Your task to perform on an android device: toggle data saver in the chrome app Image 0: 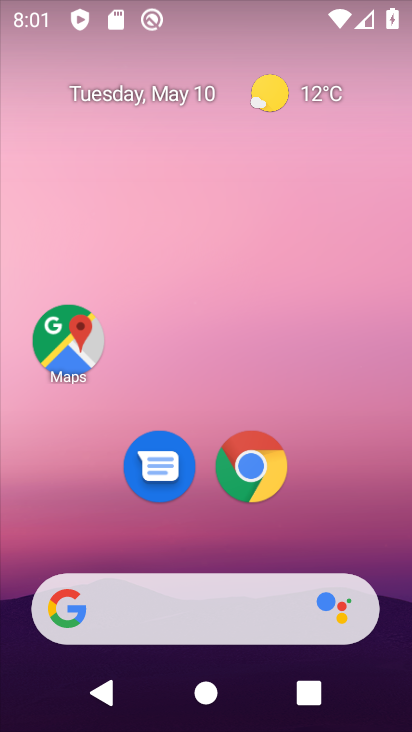
Step 0: click (254, 485)
Your task to perform on an android device: toggle data saver in the chrome app Image 1: 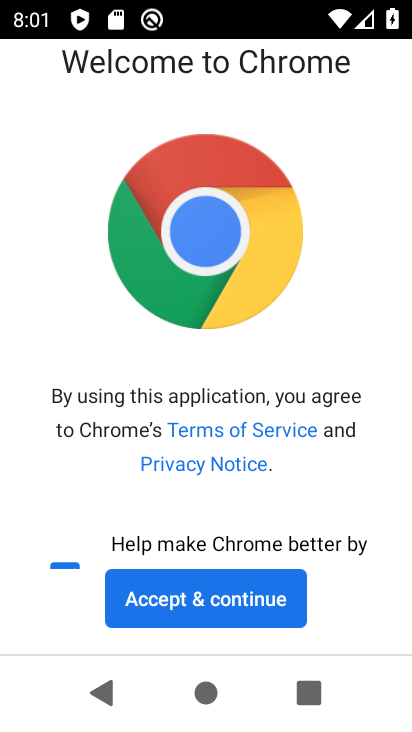
Step 1: click (201, 600)
Your task to perform on an android device: toggle data saver in the chrome app Image 2: 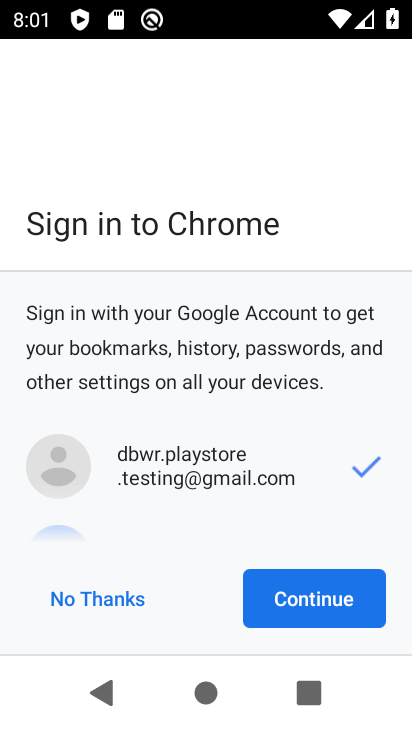
Step 2: click (310, 597)
Your task to perform on an android device: toggle data saver in the chrome app Image 3: 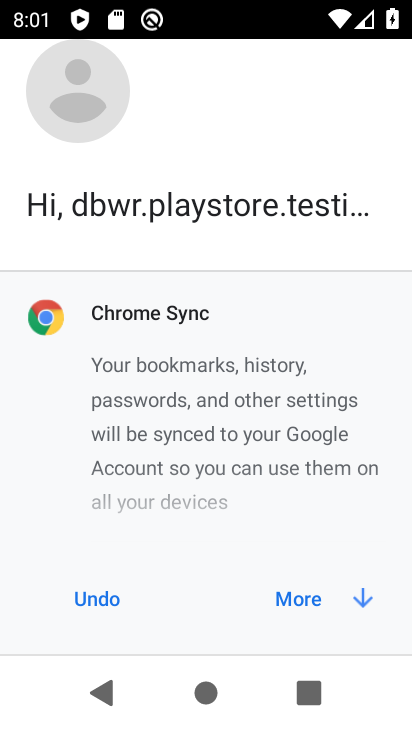
Step 3: click (310, 597)
Your task to perform on an android device: toggle data saver in the chrome app Image 4: 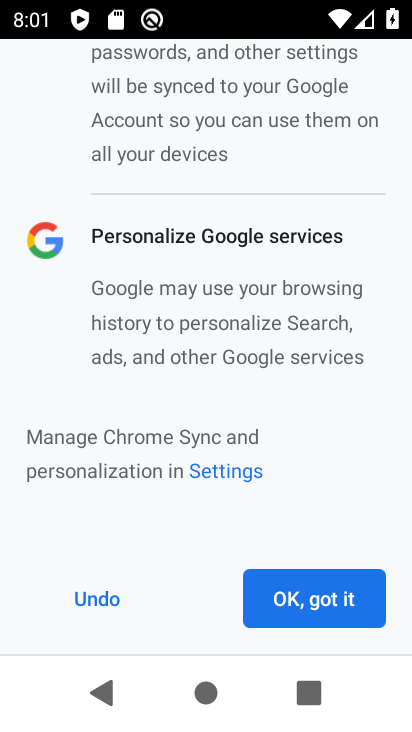
Step 4: click (308, 603)
Your task to perform on an android device: toggle data saver in the chrome app Image 5: 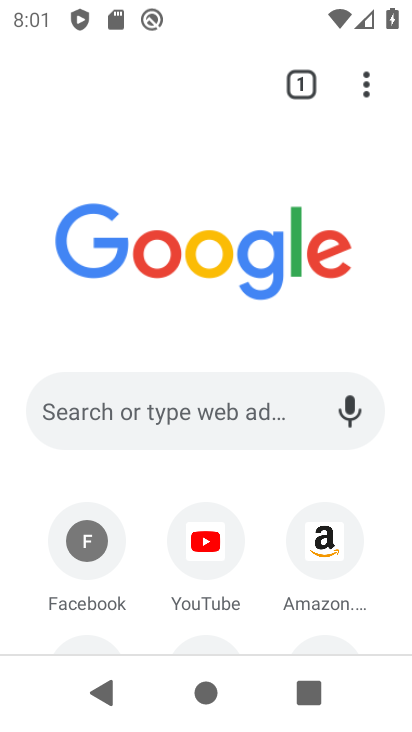
Step 5: click (362, 80)
Your task to perform on an android device: toggle data saver in the chrome app Image 6: 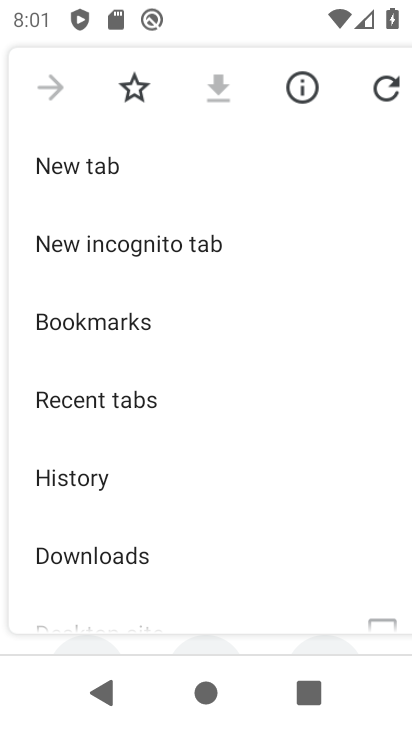
Step 6: drag from (109, 561) to (175, 282)
Your task to perform on an android device: toggle data saver in the chrome app Image 7: 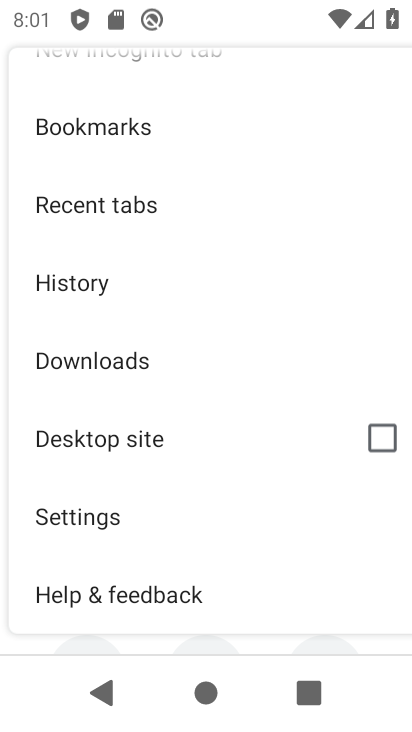
Step 7: click (86, 517)
Your task to perform on an android device: toggle data saver in the chrome app Image 8: 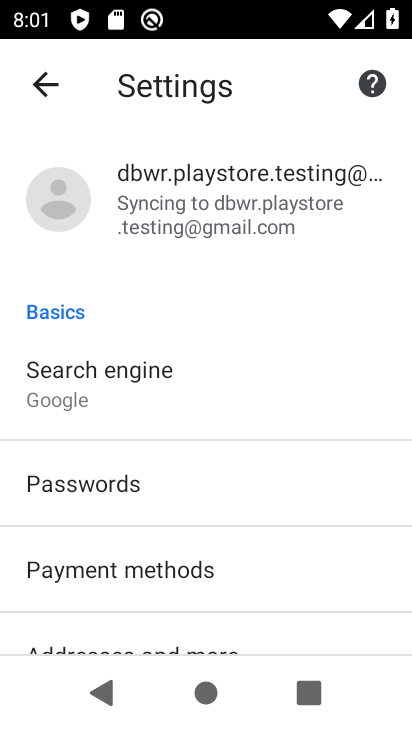
Step 8: drag from (147, 554) to (221, 232)
Your task to perform on an android device: toggle data saver in the chrome app Image 9: 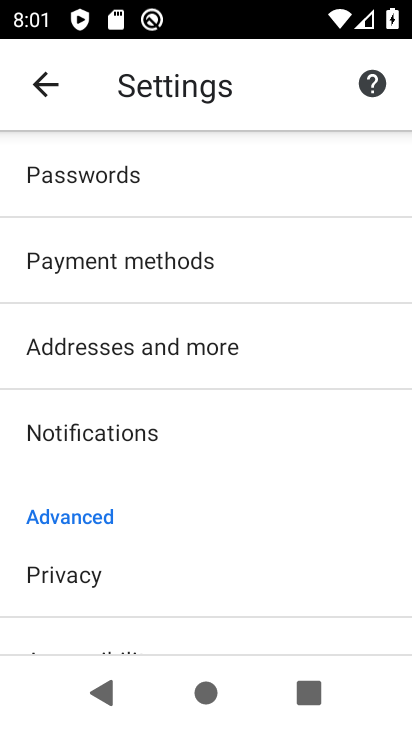
Step 9: drag from (127, 524) to (196, 287)
Your task to perform on an android device: toggle data saver in the chrome app Image 10: 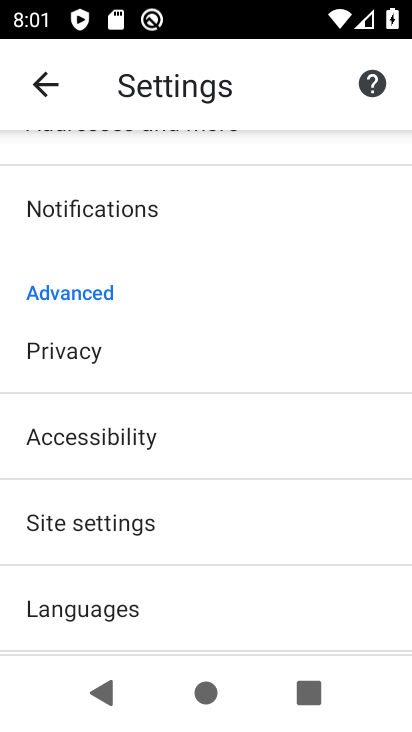
Step 10: drag from (93, 566) to (137, 415)
Your task to perform on an android device: toggle data saver in the chrome app Image 11: 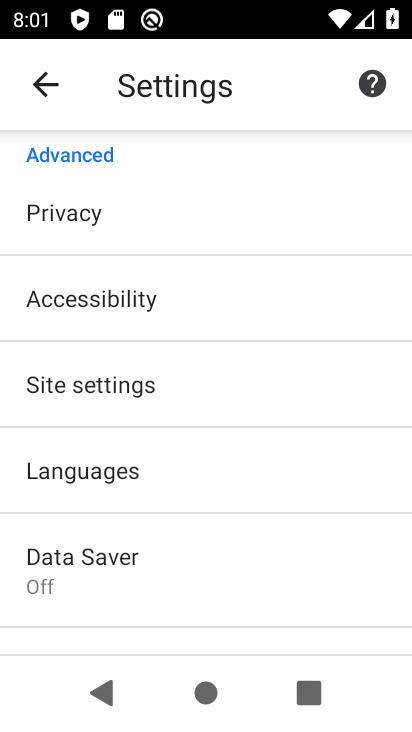
Step 11: click (98, 619)
Your task to perform on an android device: toggle data saver in the chrome app Image 12: 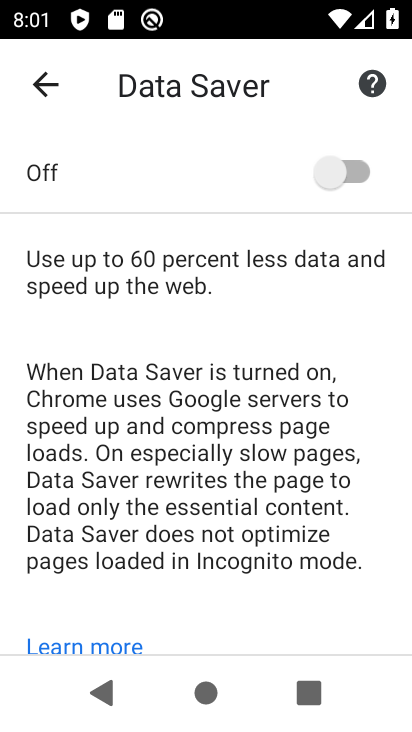
Step 12: click (372, 169)
Your task to perform on an android device: toggle data saver in the chrome app Image 13: 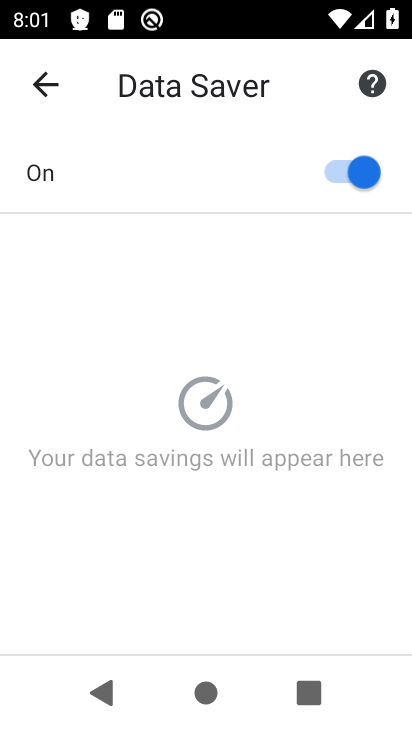
Step 13: task complete